Your task to perform on an android device: open app "Truecaller" (install if not already installed) Image 0: 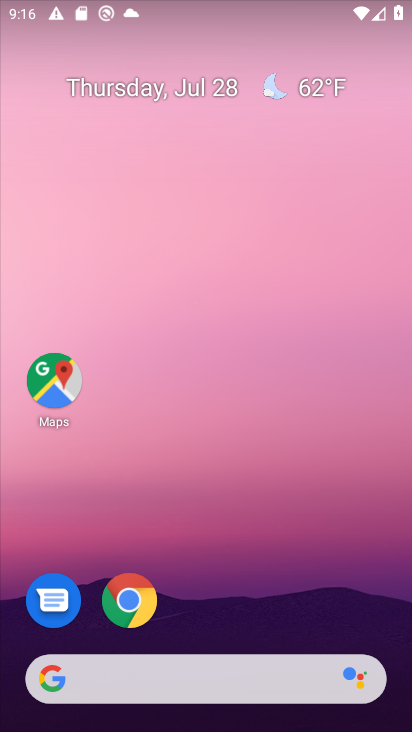
Step 0: drag from (218, 631) to (203, 16)
Your task to perform on an android device: open app "Truecaller" (install if not already installed) Image 1: 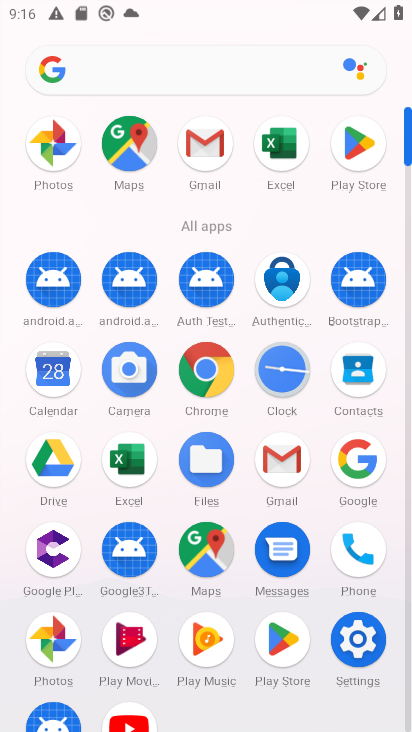
Step 1: click (359, 146)
Your task to perform on an android device: open app "Truecaller" (install if not already installed) Image 2: 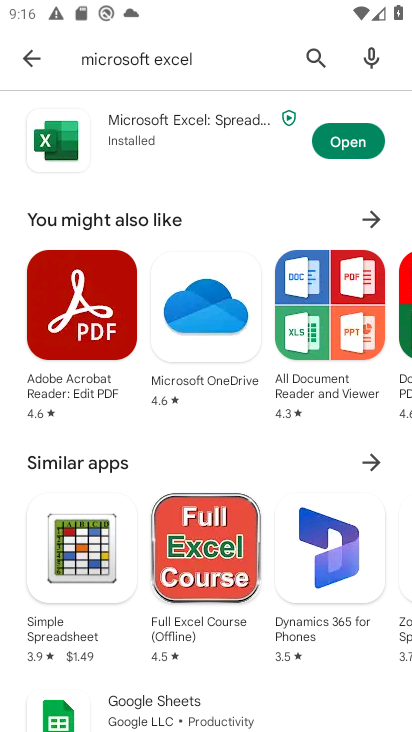
Step 2: click (306, 60)
Your task to perform on an android device: open app "Truecaller" (install if not already installed) Image 3: 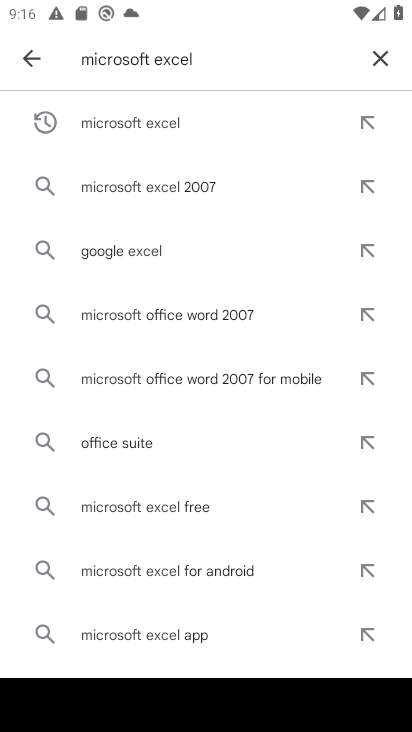
Step 3: click (372, 60)
Your task to perform on an android device: open app "Truecaller" (install if not already installed) Image 4: 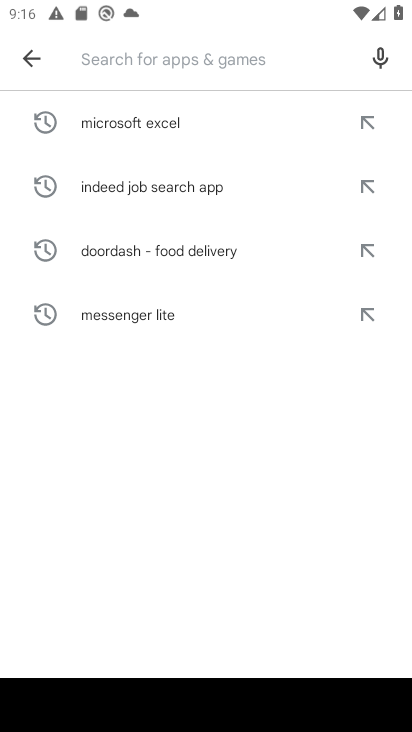
Step 4: type "Truecaller"
Your task to perform on an android device: open app "Truecaller" (install if not already installed) Image 5: 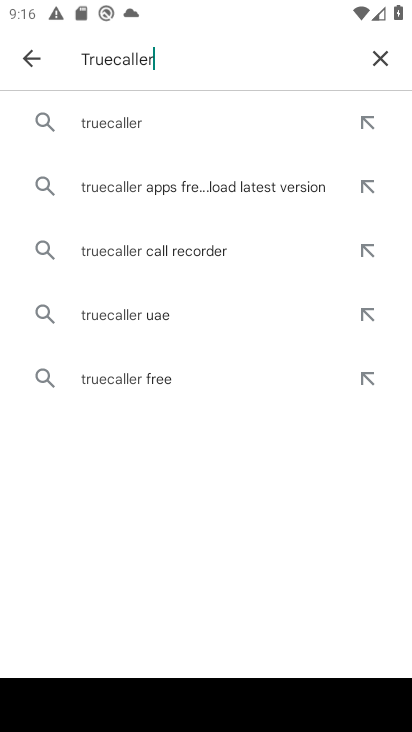
Step 5: click (122, 119)
Your task to perform on an android device: open app "Truecaller" (install if not already installed) Image 6: 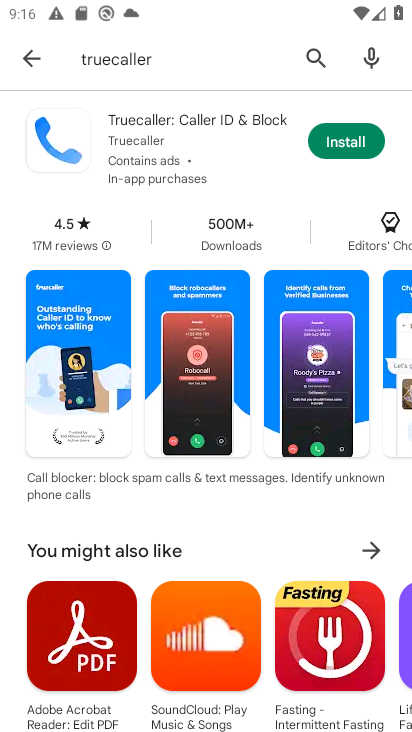
Step 6: click (347, 141)
Your task to perform on an android device: open app "Truecaller" (install if not already installed) Image 7: 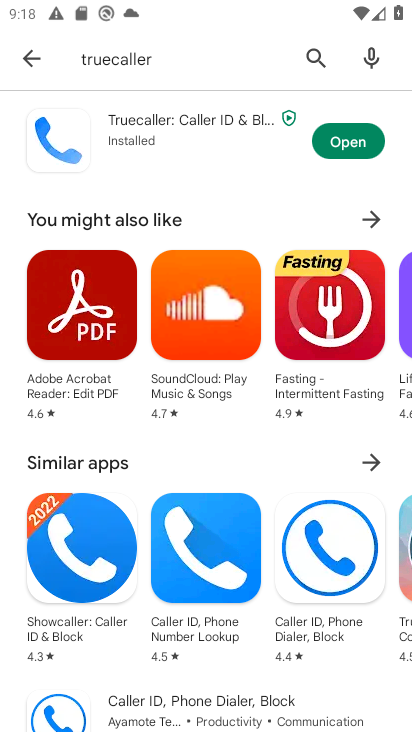
Step 7: click (345, 148)
Your task to perform on an android device: open app "Truecaller" (install if not already installed) Image 8: 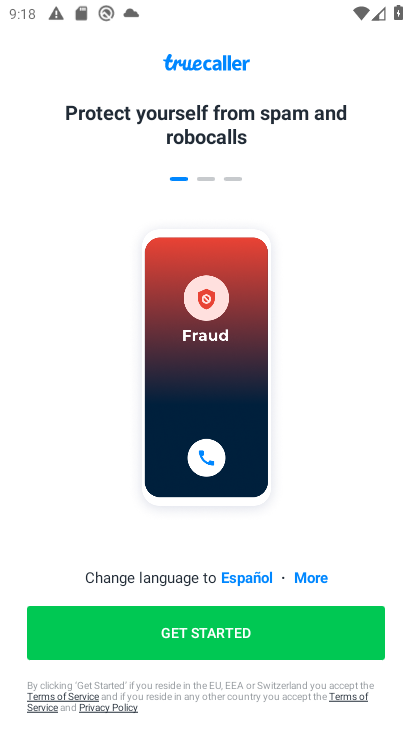
Step 8: press home button
Your task to perform on an android device: open app "Truecaller" (install if not already installed) Image 9: 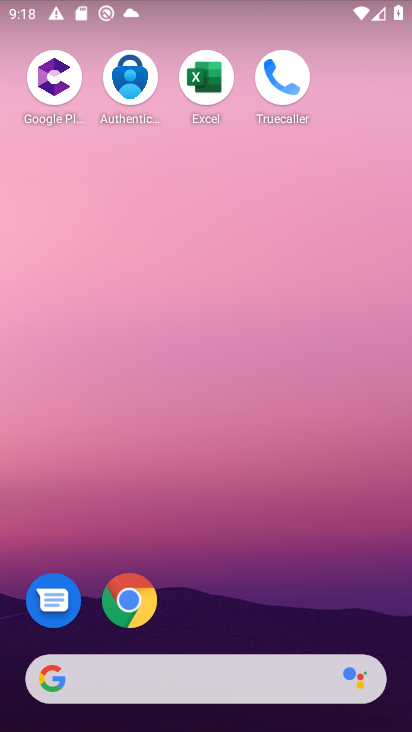
Step 9: click (285, 84)
Your task to perform on an android device: open app "Truecaller" (install if not already installed) Image 10: 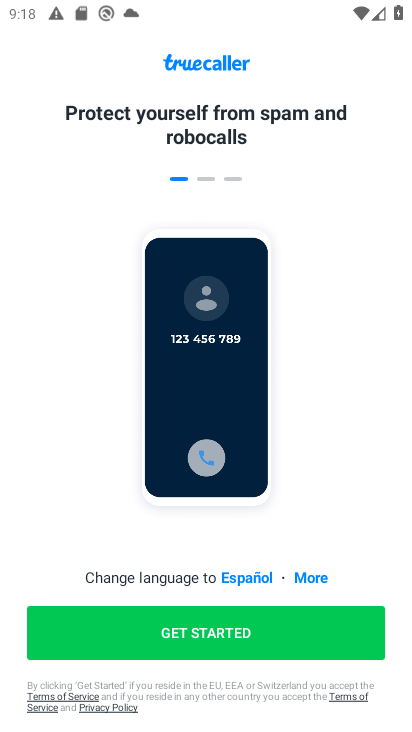
Step 10: task complete